Your task to perform on an android device: toggle javascript in the chrome app Image 0: 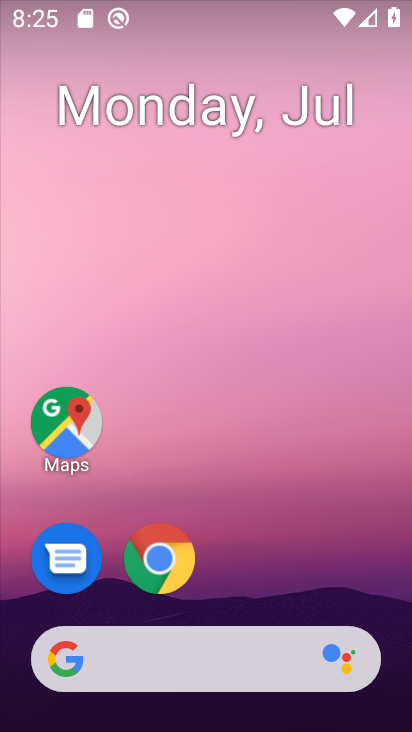
Step 0: drag from (371, 594) to (382, 150)
Your task to perform on an android device: toggle javascript in the chrome app Image 1: 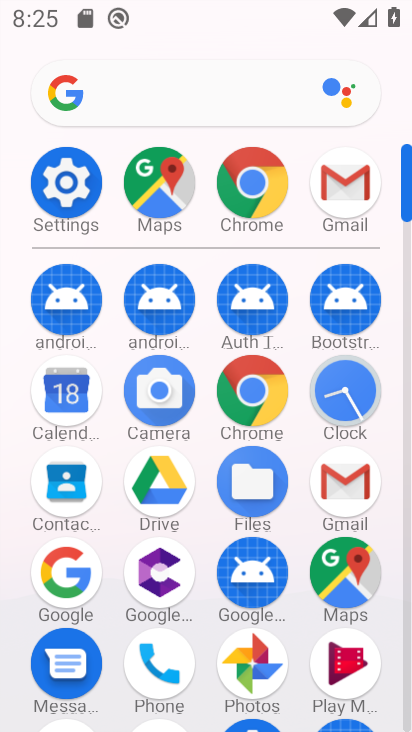
Step 1: click (258, 410)
Your task to perform on an android device: toggle javascript in the chrome app Image 2: 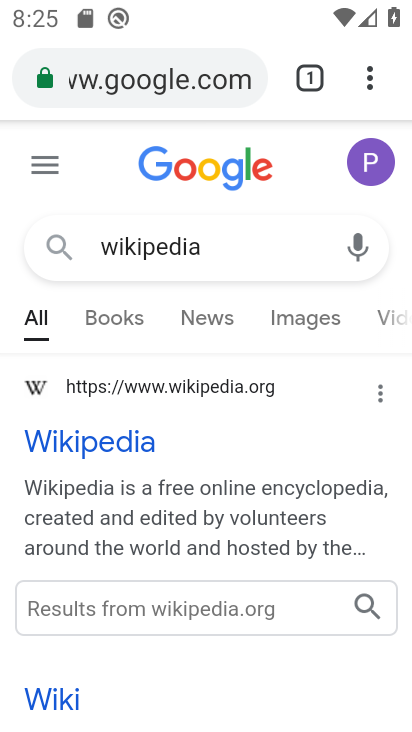
Step 2: click (371, 85)
Your task to perform on an android device: toggle javascript in the chrome app Image 3: 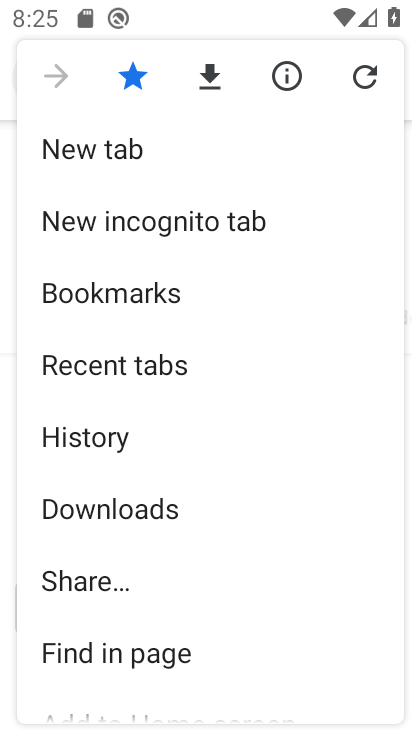
Step 3: drag from (300, 474) to (308, 395)
Your task to perform on an android device: toggle javascript in the chrome app Image 4: 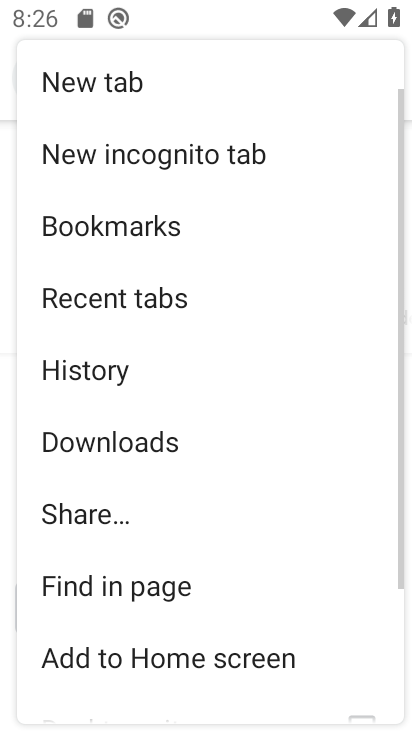
Step 4: drag from (301, 541) to (300, 461)
Your task to perform on an android device: toggle javascript in the chrome app Image 5: 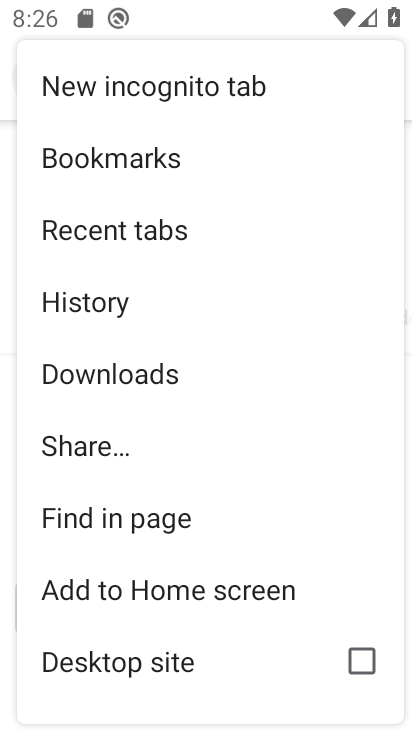
Step 5: drag from (302, 617) to (308, 507)
Your task to perform on an android device: toggle javascript in the chrome app Image 6: 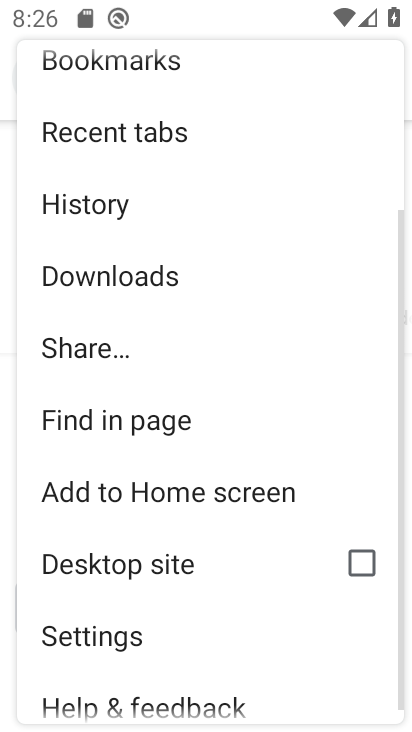
Step 6: drag from (273, 596) to (271, 488)
Your task to perform on an android device: toggle javascript in the chrome app Image 7: 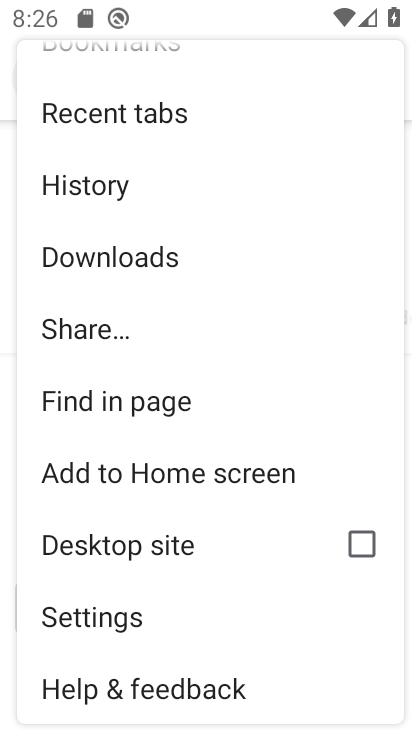
Step 7: click (139, 629)
Your task to perform on an android device: toggle javascript in the chrome app Image 8: 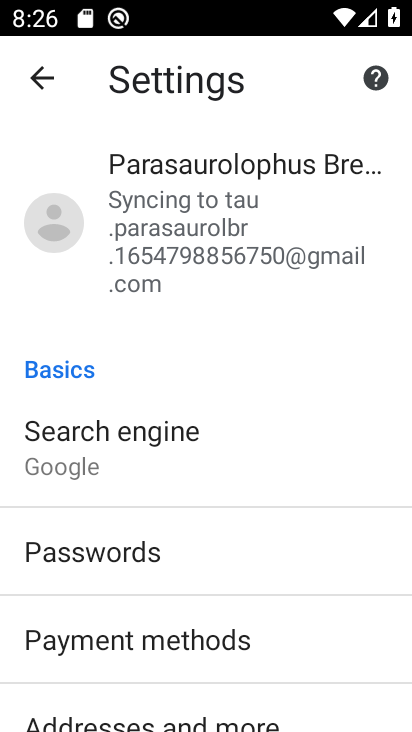
Step 8: drag from (314, 611) to (329, 485)
Your task to perform on an android device: toggle javascript in the chrome app Image 9: 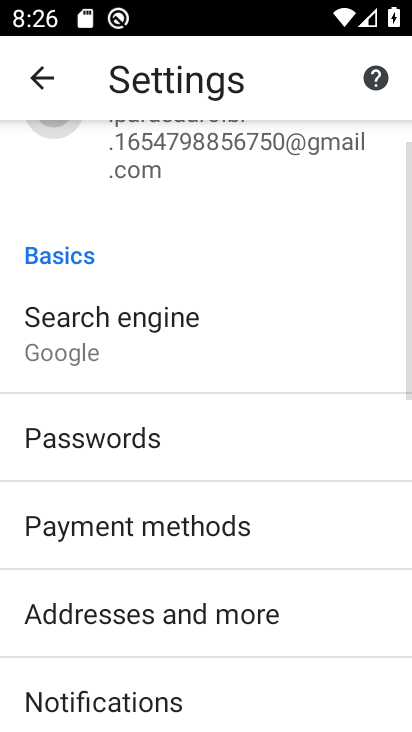
Step 9: drag from (334, 609) to (340, 519)
Your task to perform on an android device: toggle javascript in the chrome app Image 10: 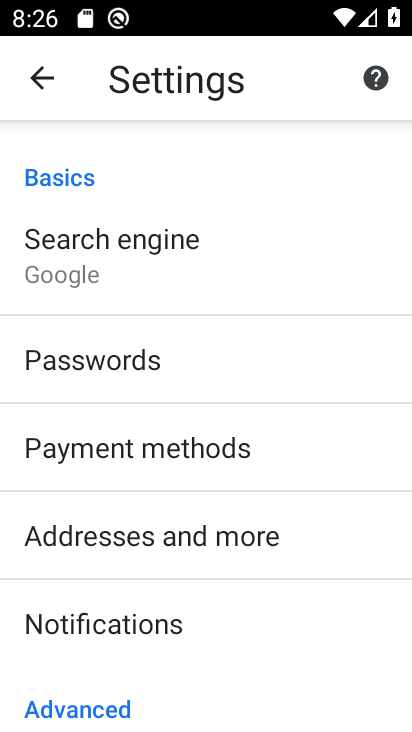
Step 10: drag from (331, 622) to (337, 535)
Your task to perform on an android device: toggle javascript in the chrome app Image 11: 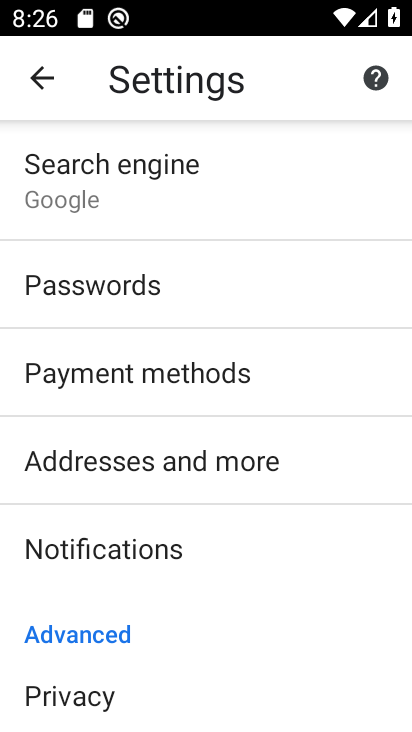
Step 11: drag from (315, 616) to (323, 520)
Your task to perform on an android device: toggle javascript in the chrome app Image 12: 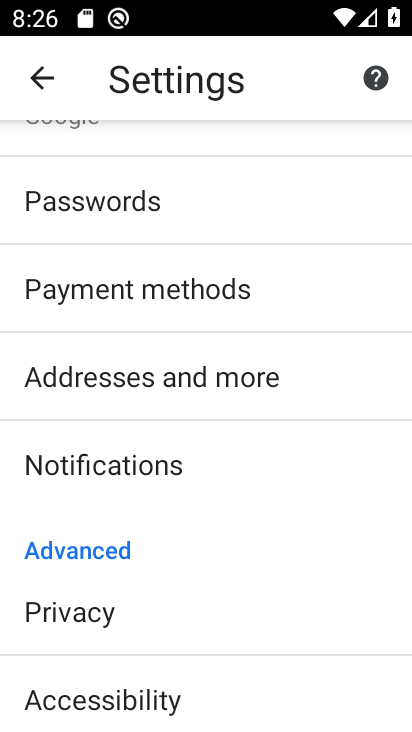
Step 12: drag from (309, 625) to (316, 553)
Your task to perform on an android device: toggle javascript in the chrome app Image 13: 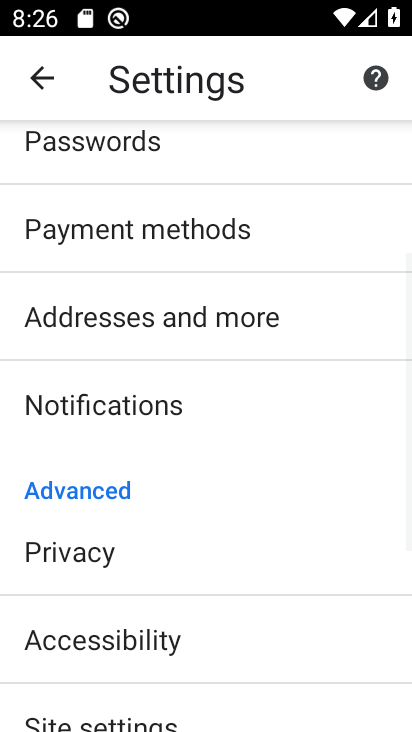
Step 13: drag from (323, 652) to (334, 553)
Your task to perform on an android device: toggle javascript in the chrome app Image 14: 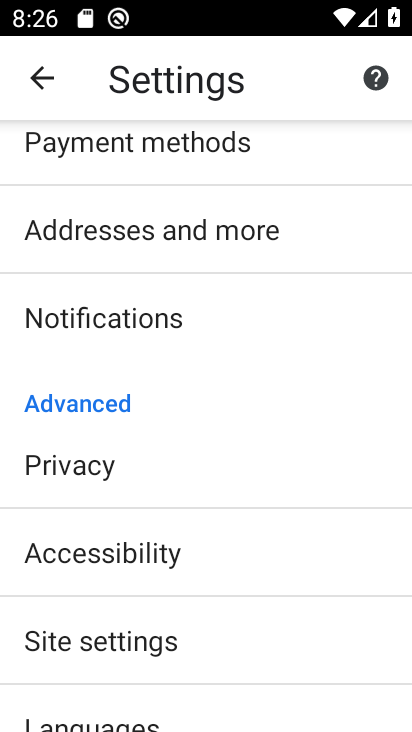
Step 14: drag from (332, 645) to (339, 574)
Your task to perform on an android device: toggle javascript in the chrome app Image 15: 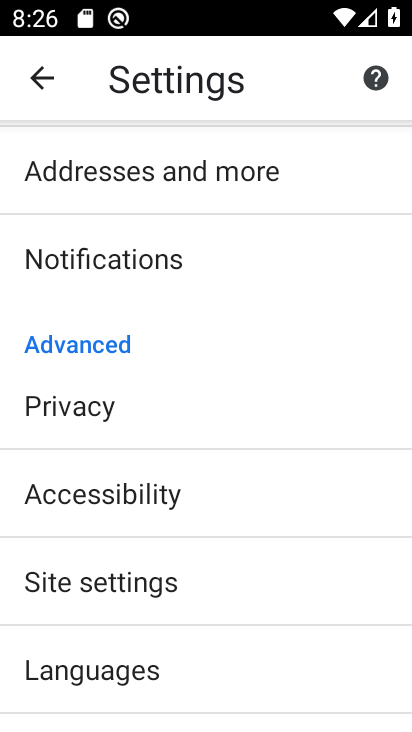
Step 15: click (339, 574)
Your task to perform on an android device: toggle javascript in the chrome app Image 16: 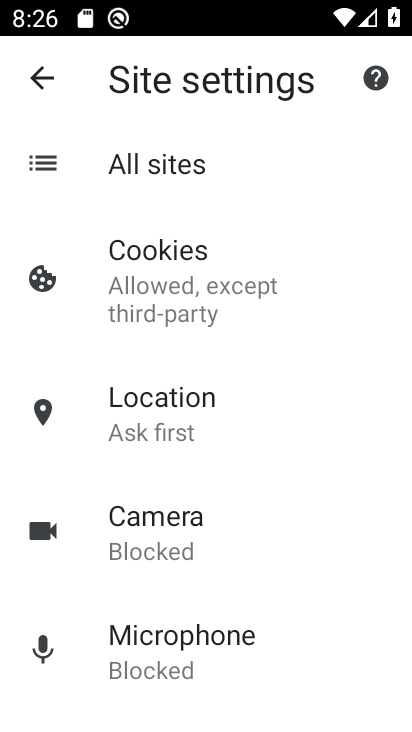
Step 16: drag from (332, 601) to (336, 491)
Your task to perform on an android device: toggle javascript in the chrome app Image 17: 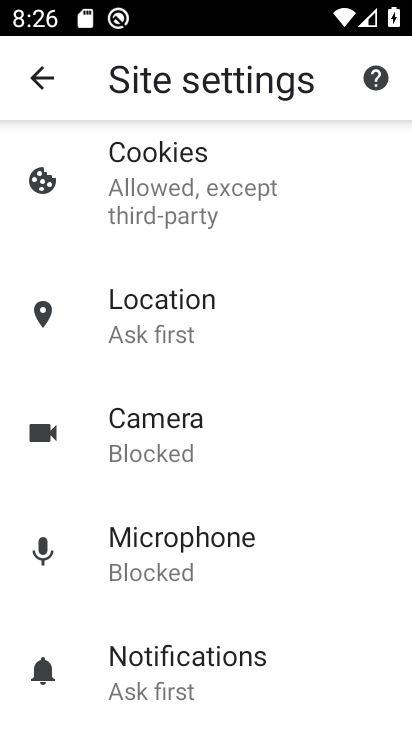
Step 17: drag from (335, 586) to (337, 509)
Your task to perform on an android device: toggle javascript in the chrome app Image 18: 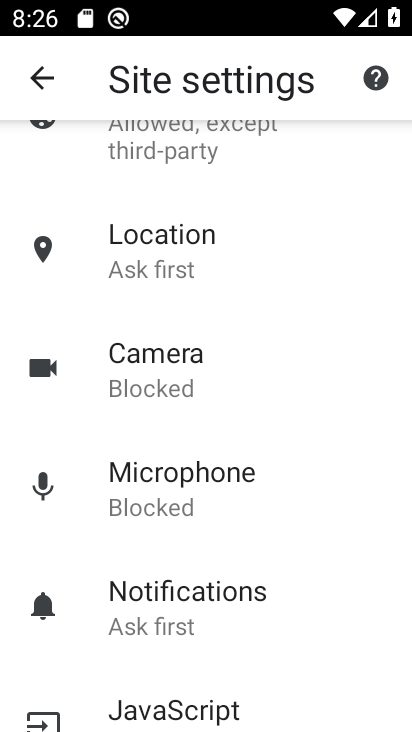
Step 18: drag from (344, 598) to (347, 521)
Your task to perform on an android device: toggle javascript in the chrome app Image 19: 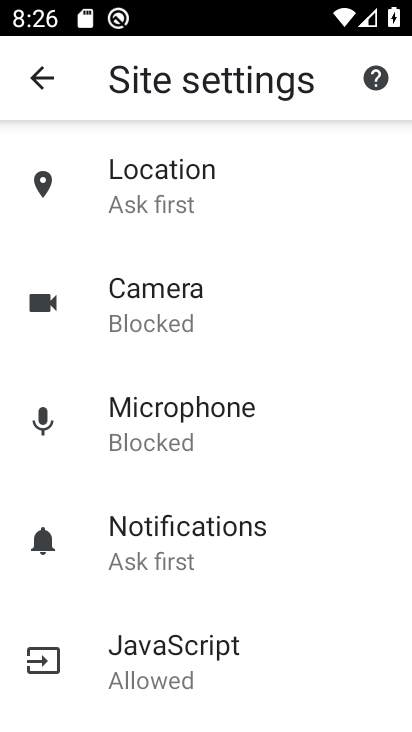
Step 19: drag from (337, 604) to (339, 495)
Your task to perform on an android device: toggle javascript in the chrome app Image 20: 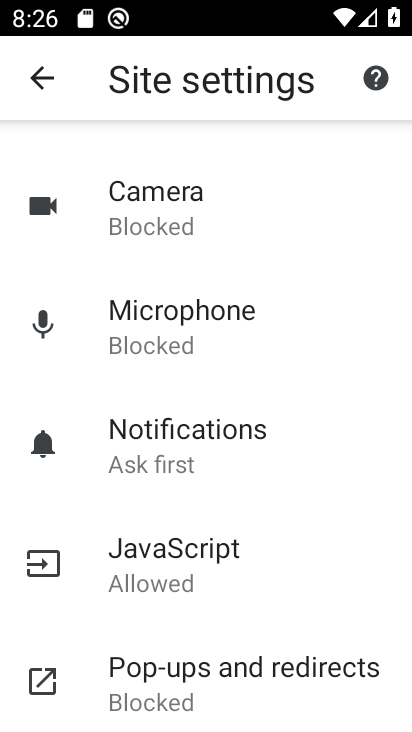
Step 20: click (319, 577)
Your task to perform on an android device: toggle javascript in the chrome app Image 21: 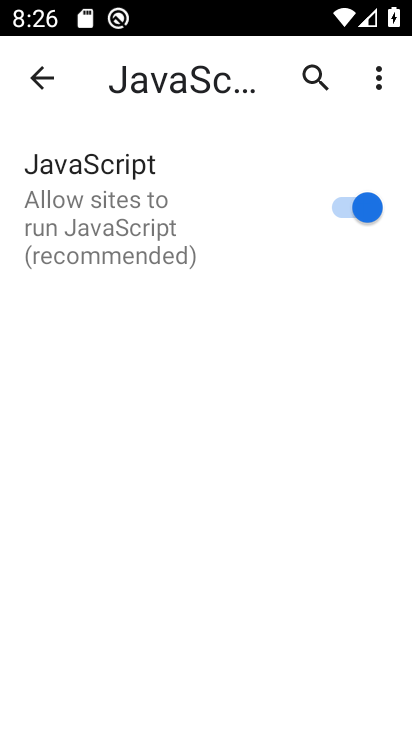
Step 21: click (359, 205)
Your task to perform on an android device: toggle javascript in the chrome app Image 22: 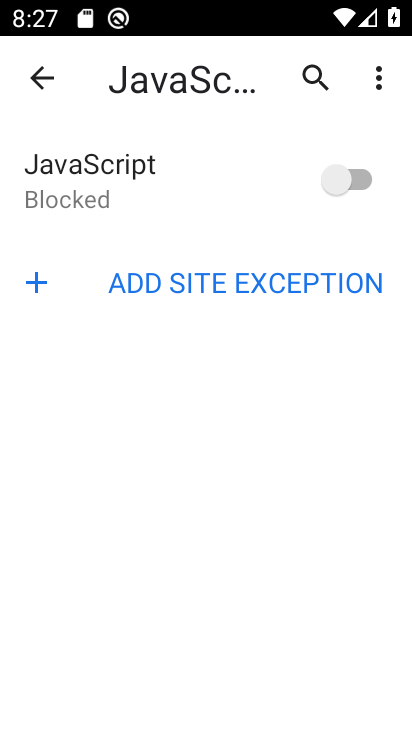
Step 22: task complete